Your task to perform on an android device: Add "apple airpods pro" to the cart on ebay Image 0: 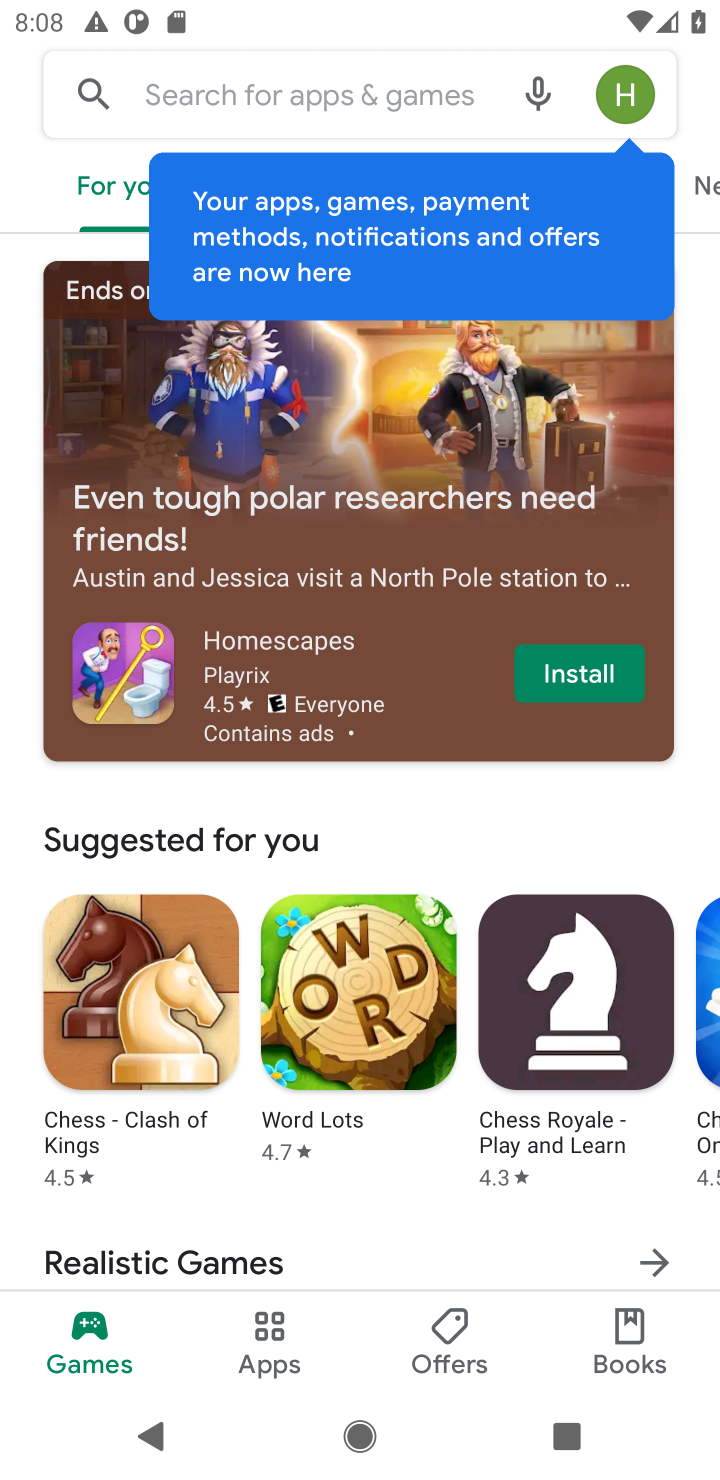
Step 0: press home button
Your task to perform on an android device: Add "apple airpods pro" to the cart on ebay Image 1: 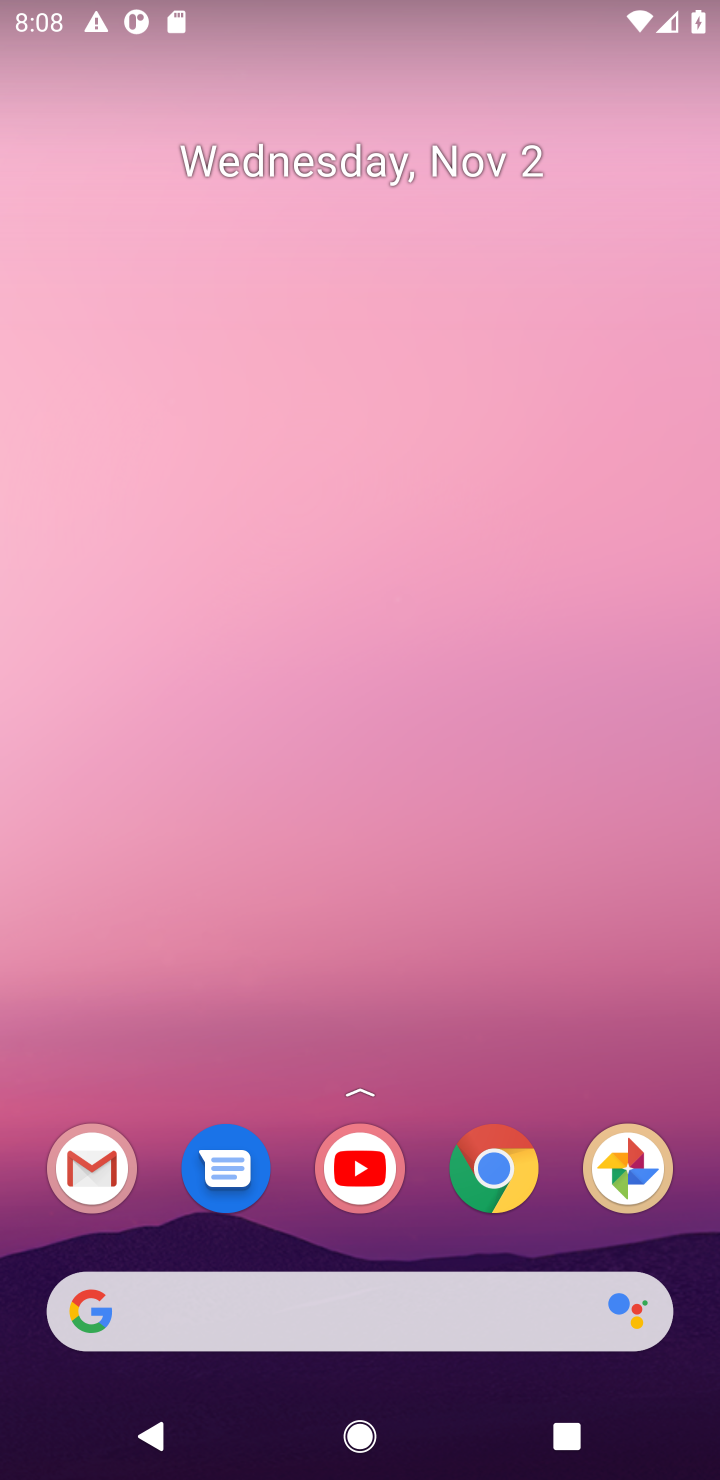
Step 1: click (495, 1169)
Your task to perform on an android device: Add "apple airpods pro" to the cart on ebay Image 2: 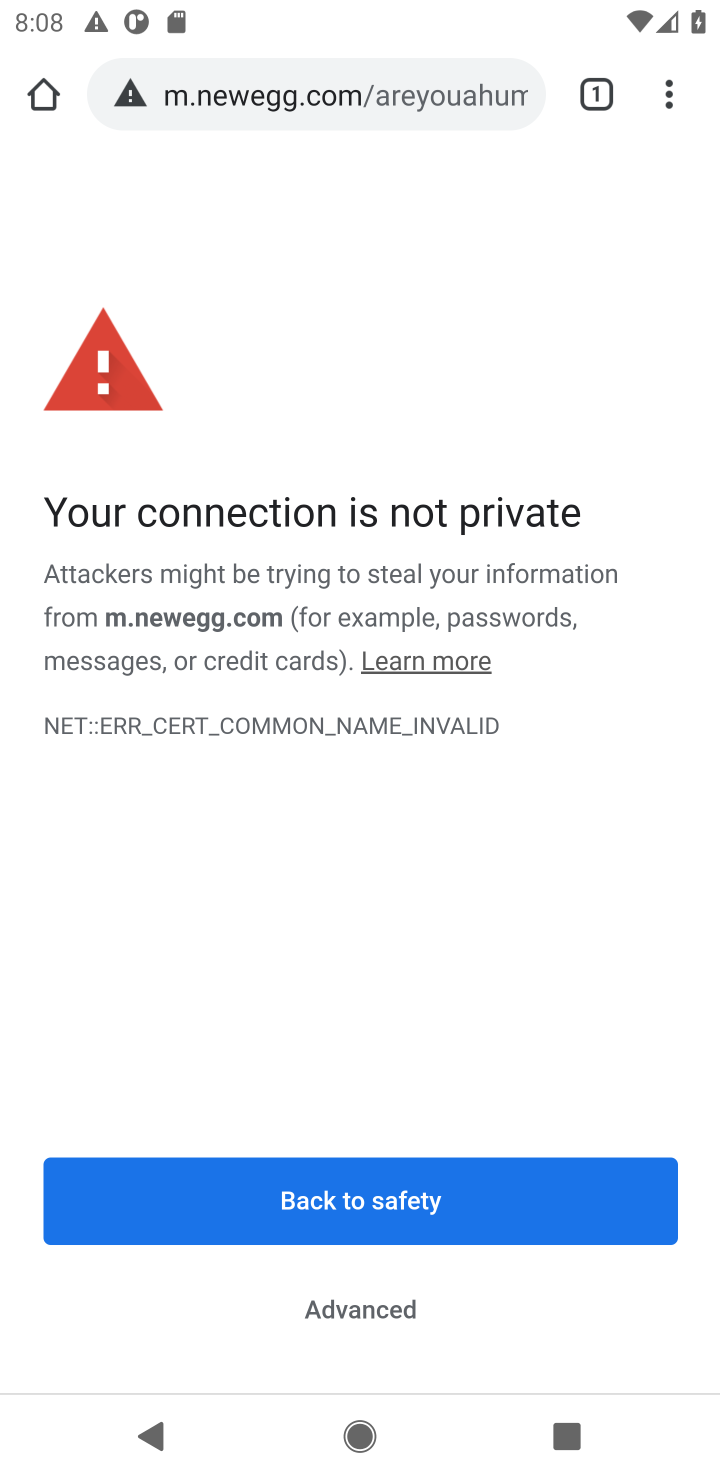
Step 2: click (347, 89)
Your task to perform on an android device: Add "apple airpods pro" to the cart on ebay Image 3: 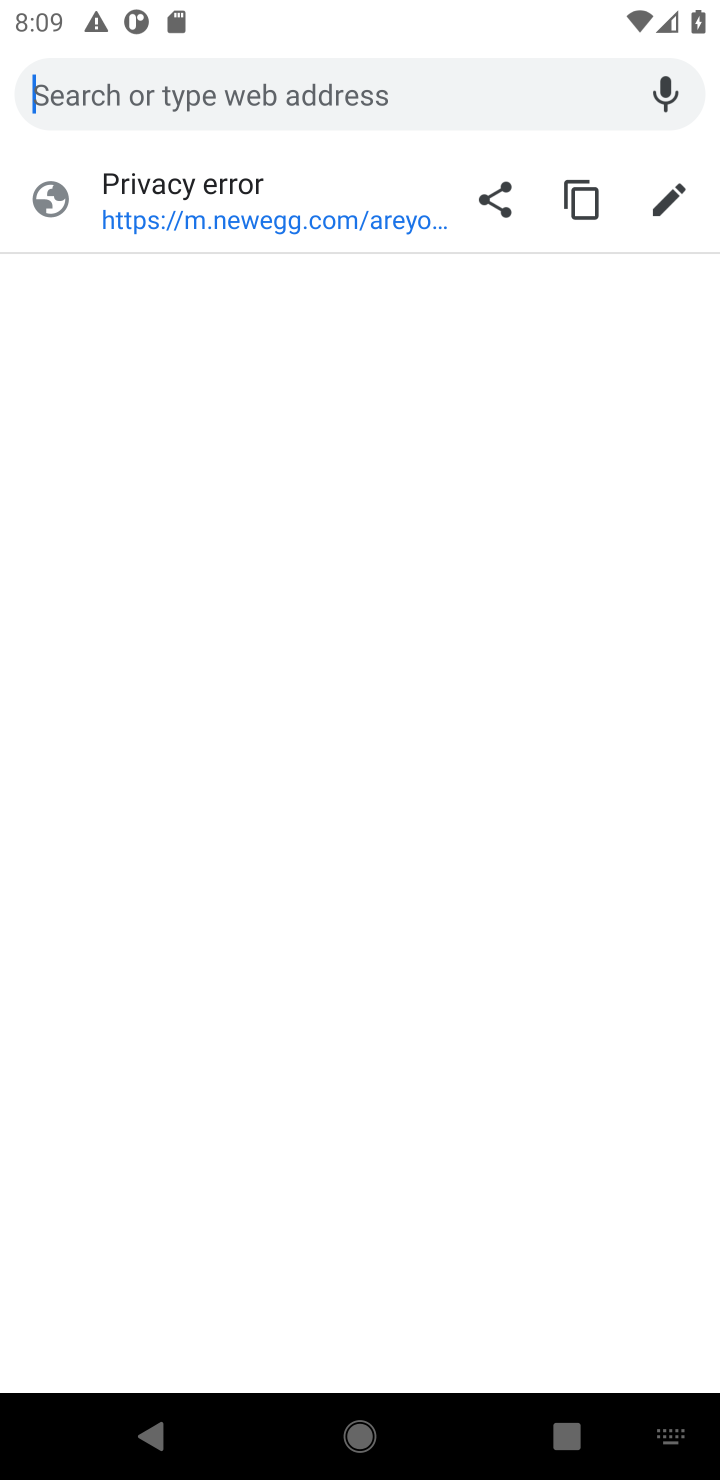
Step 3: type "ebay"
Your task to perform on an android device: Add "apple airpods pro" to the cart on ebay Image 4: 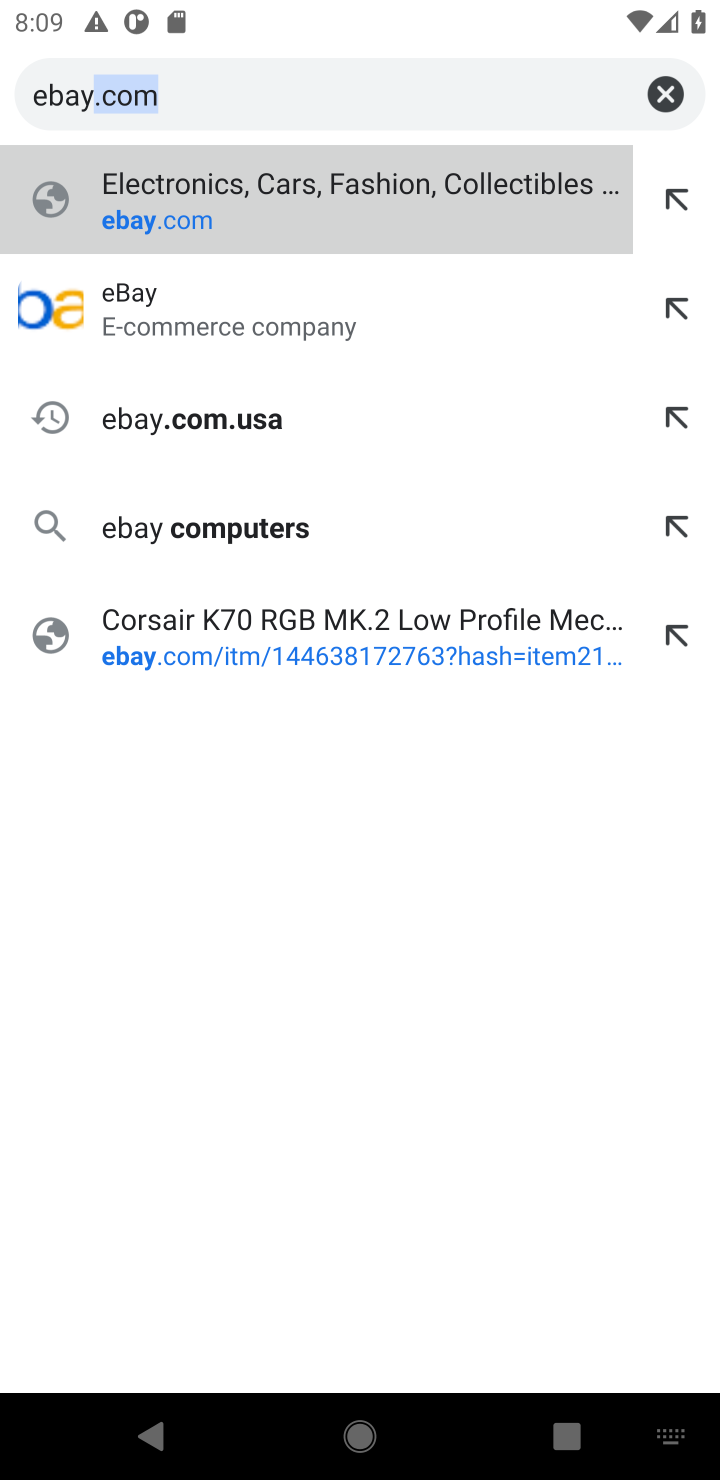
Step 4: click (217, 299)
Your task to perform on an android device: Add "apple airpods pro" to the cart on ebay Image 5: 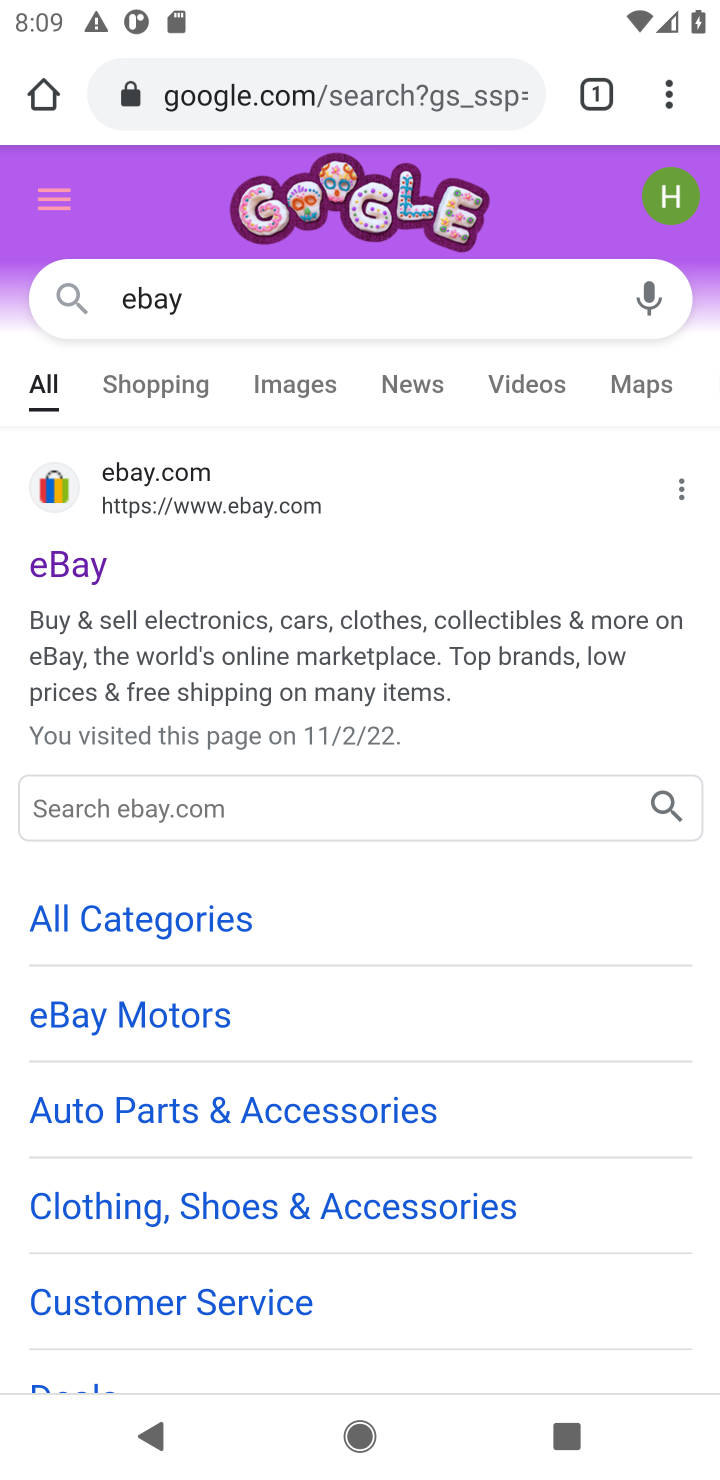
Step 5: click (217, 534)
Your task to perform on an android device: Add "apple airpods pro" to the cart on ebay Image 6: 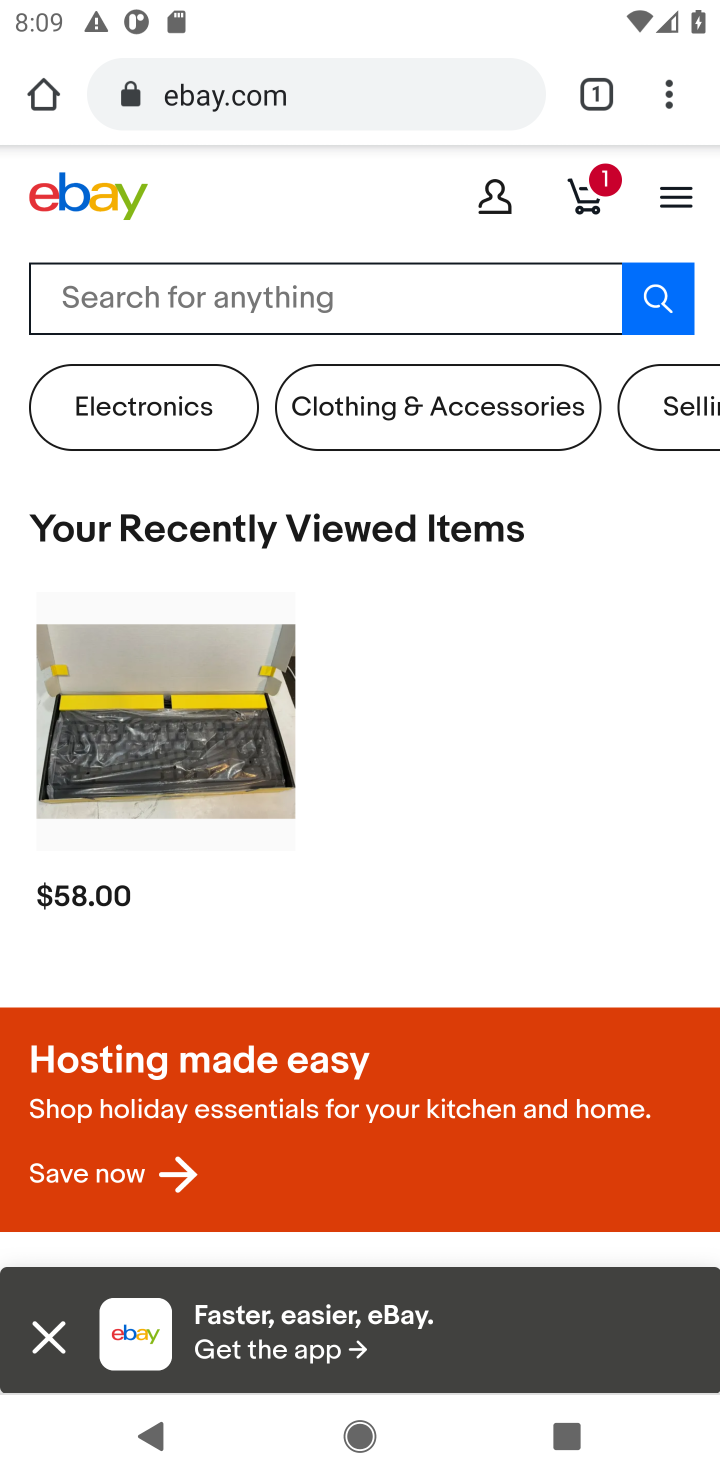
Step 6: click (305, 304)
Your task to perform on an android device: Add "apple airpods pro" to the cart on ebay Image 7: 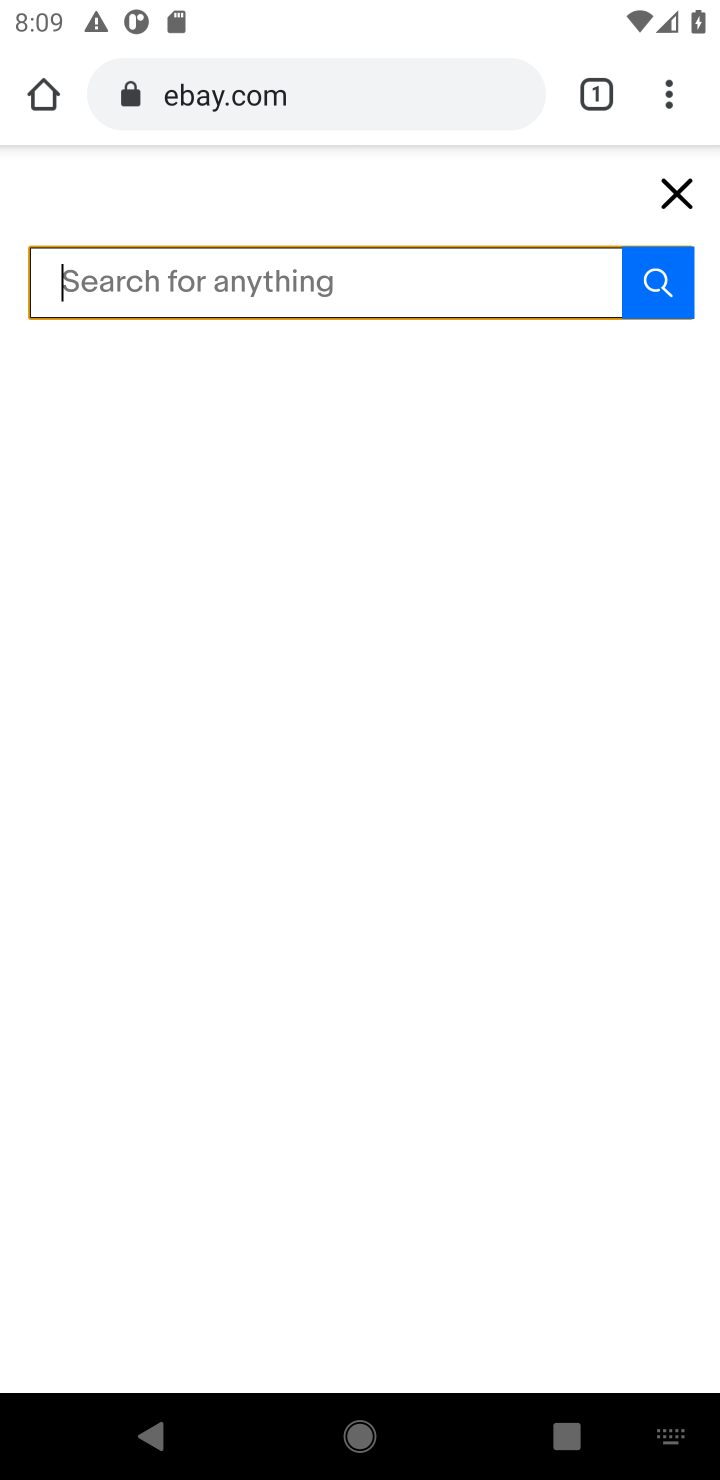
Step 7: type "apple airpods pro"
Your task to perform on an android device: Add "apple airpods pro" to the cart on ebay Image 8: 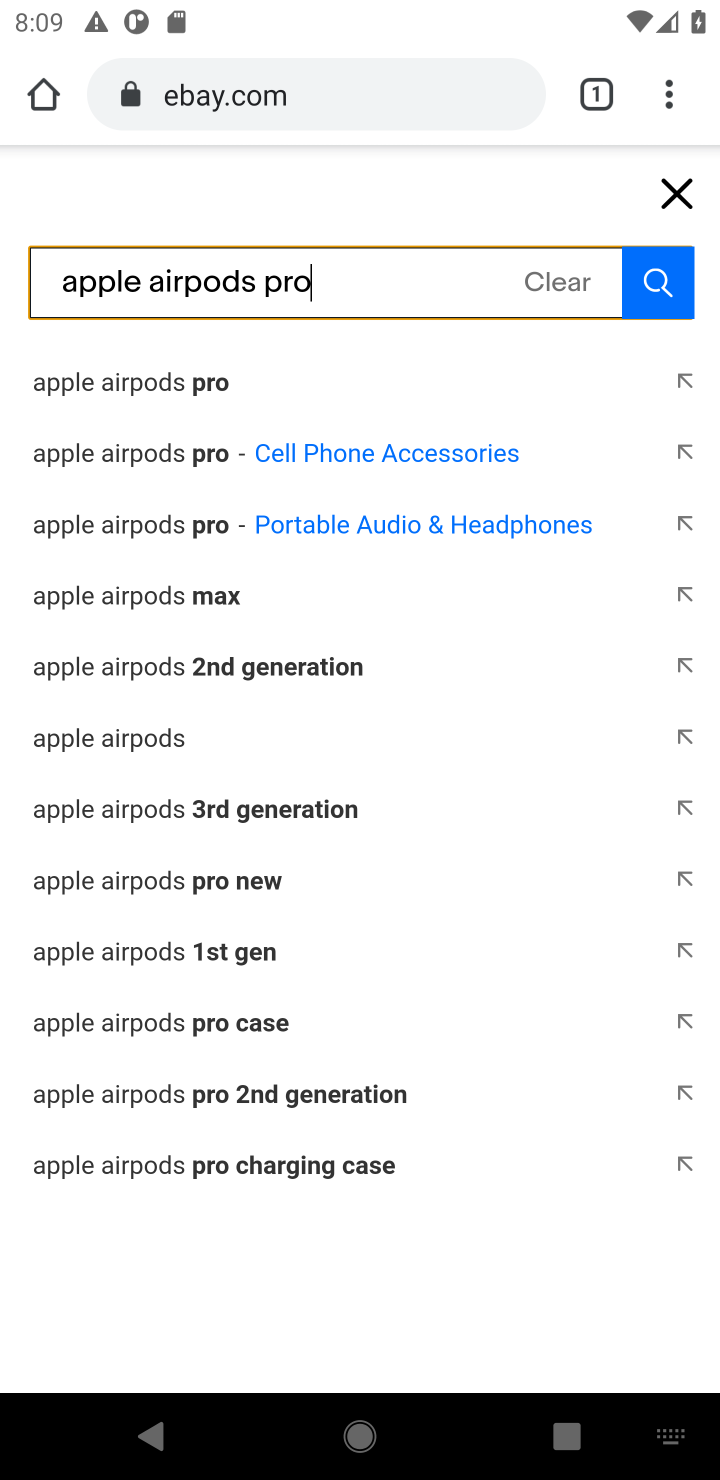
Step 8: click (94, 386)
Your task to perform on an android device: Add "apple airpods pro" to the cart on ebay Image 9: 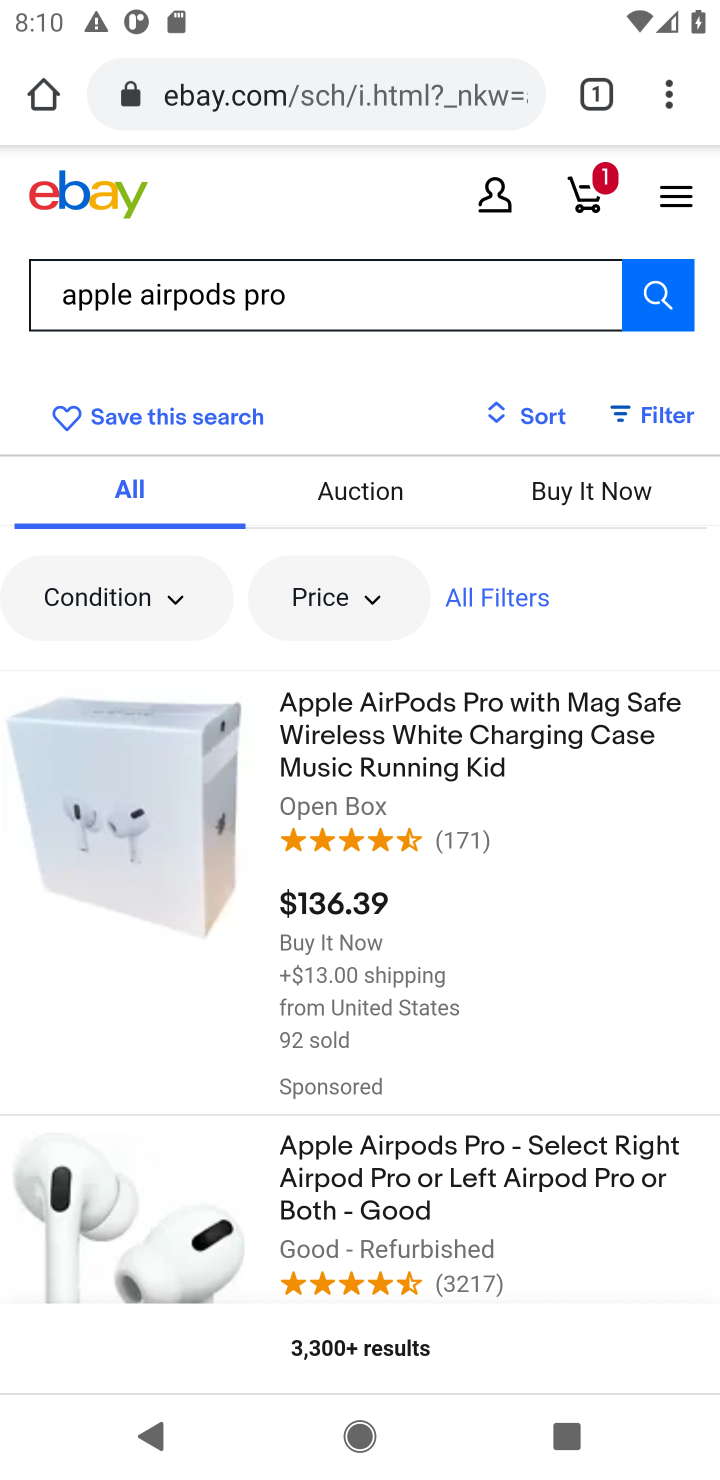
Step 9: click (447, 730)
Your task to perform on an android device: Add "apple airpods pro" to the cart on ebay Image 10: 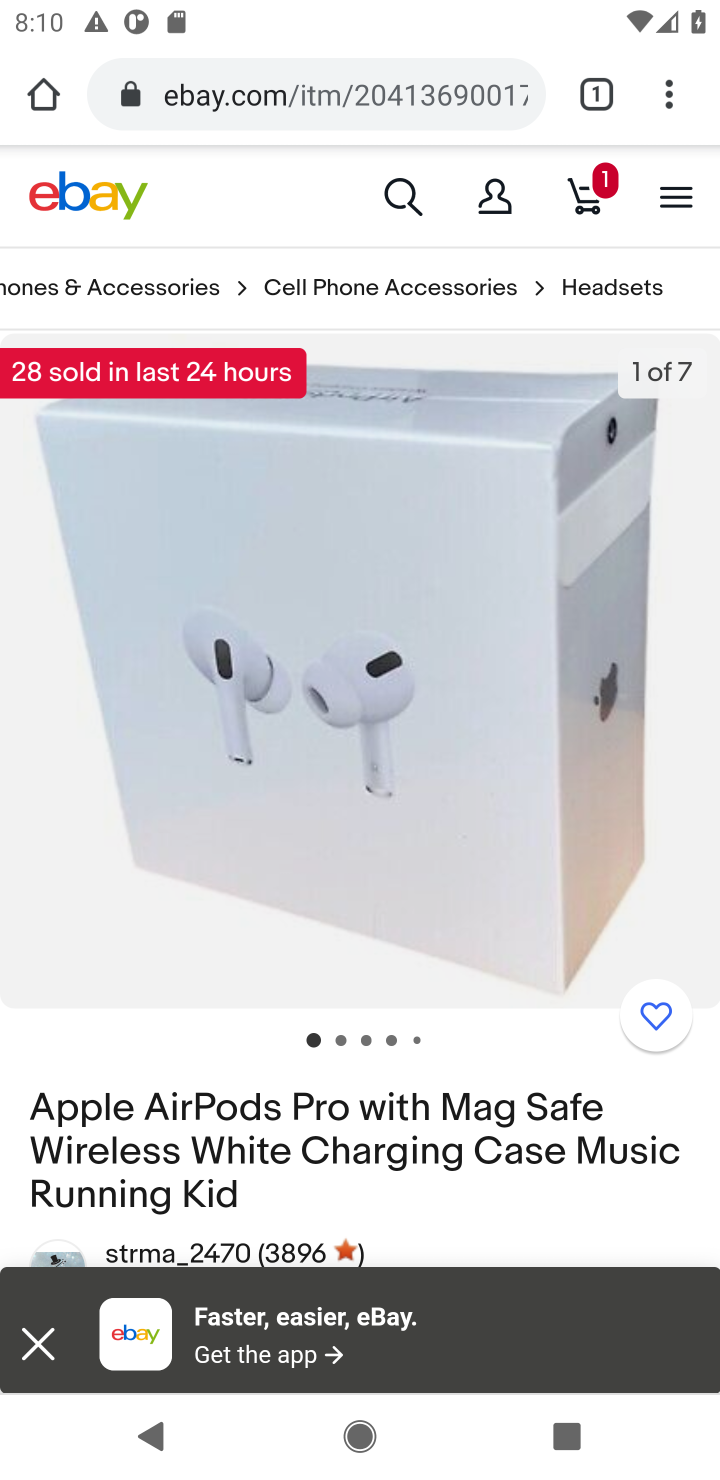
Step 10: drag from (486, 1203) to (469, 475)
Your task to perform on an android device: Add "apple airpods pro" to the cart on ebay Image 11: 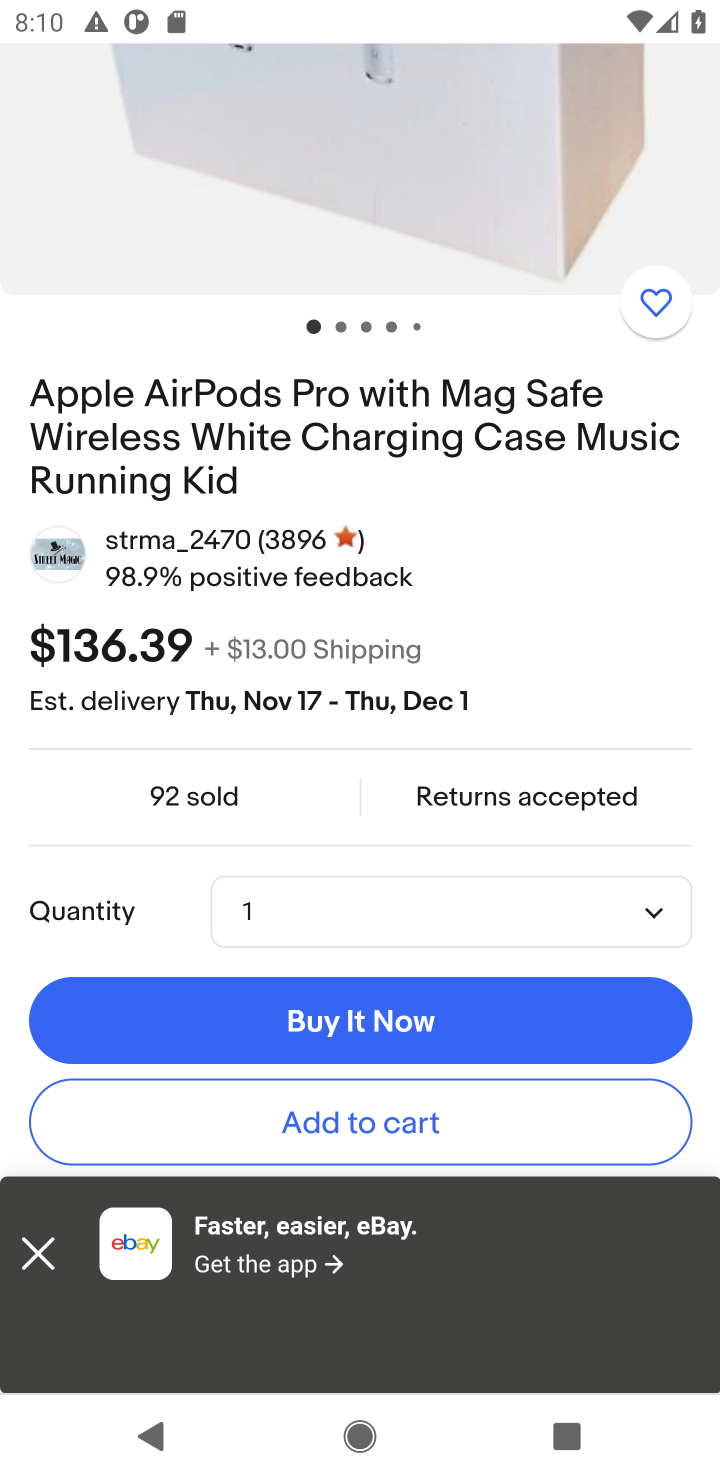
Step 11: click (387, 1117)
Your task to perform on an android device: Add "apple airpods pro" to the cart on ebay Image 12: 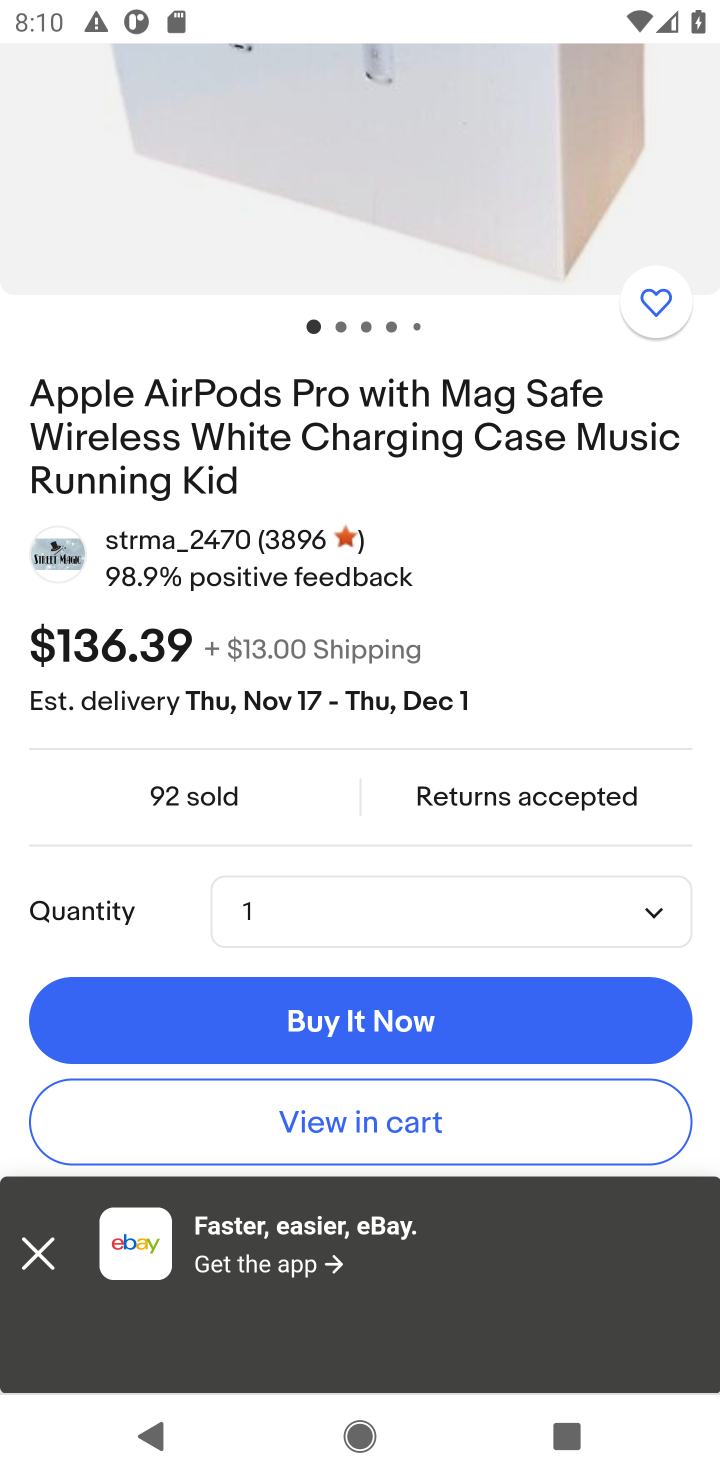
Step 12: click (387, 1117)
Your task to perform on an android device: Add "apple airpods pro" to the cart on ebay Image 13: 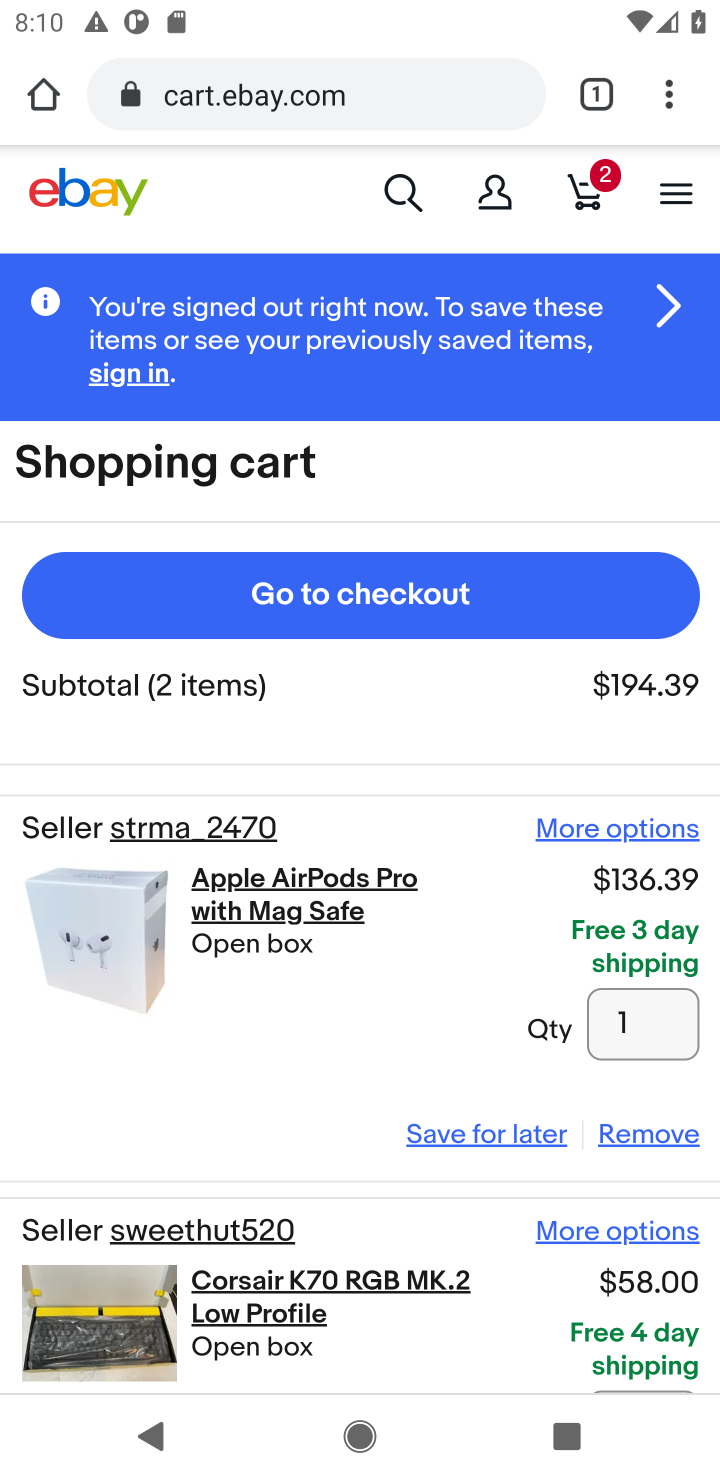
Step 13: task complete